Your task to perform on an android device: Open Wikipedia Image 0: 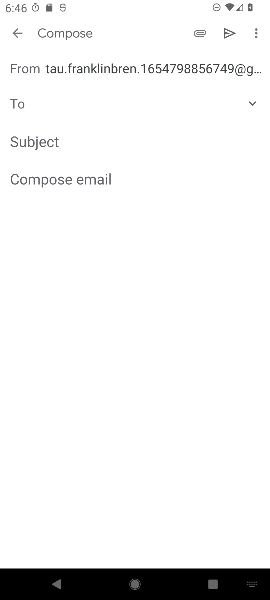
Step 0: press home button
Your task to perform on an android device: Open Wikipedia Image 1: 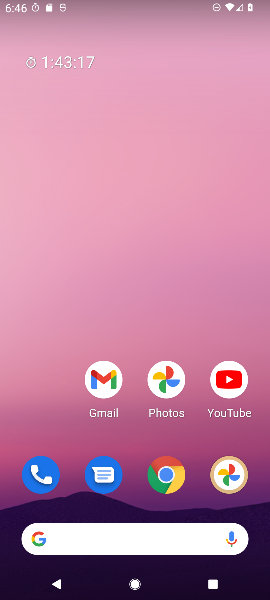
Step 1: drag from (40, 418) to (50, 185)
Your task to perform on an android device: Open Wikipedia Image 2: 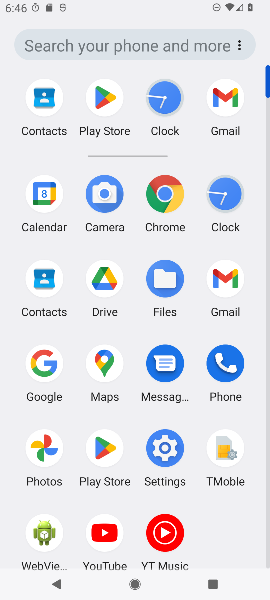
Step 2: click (164, 192)
Your task to perform on an android device: Open Wikipedia Image 3: 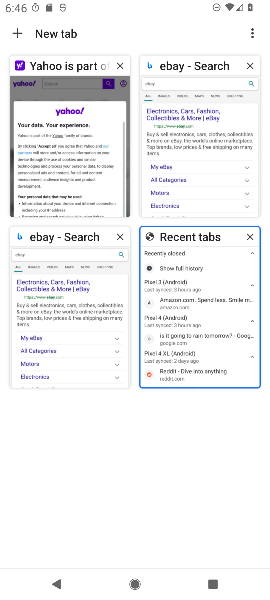
Step 3: press back button
Your task to perform on an android device: Open Wikipedia Image 4: 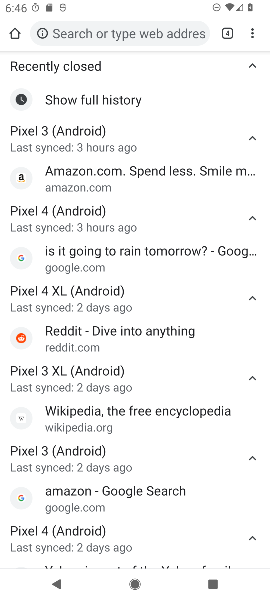
Step 4: click (148, 33)
Your task to perform on an android device: Open Wikipedia Image 5: 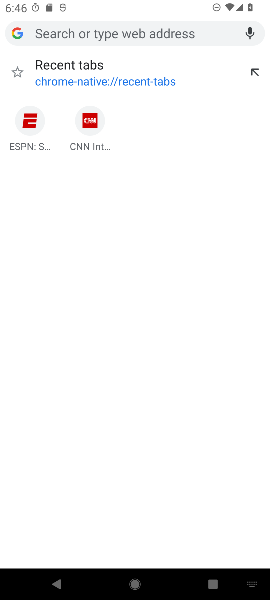
Step 5: type "wikipedia"
Your task to perform on an android device: Open Wikipedia Image 6: 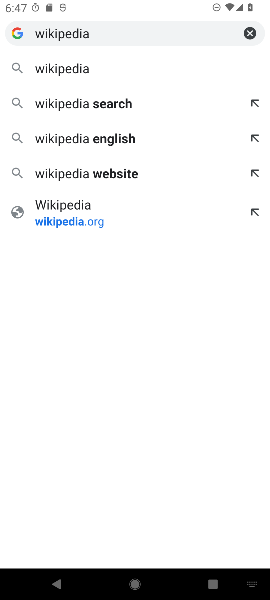
Step 6: click (67, 69)
Your task to perform on an android device: Open Wikipedia Image 7: 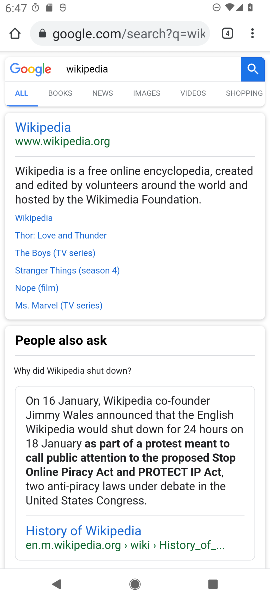
Step 7: task complete